Your task to perform on an android device: clear history in the chrome app Image 0: 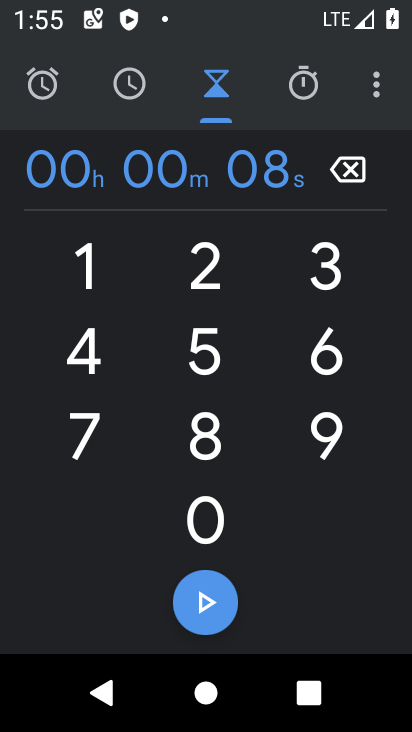
Step 0: press home button
Your task to perform on an android device: clear history in the chrome app Image 1: 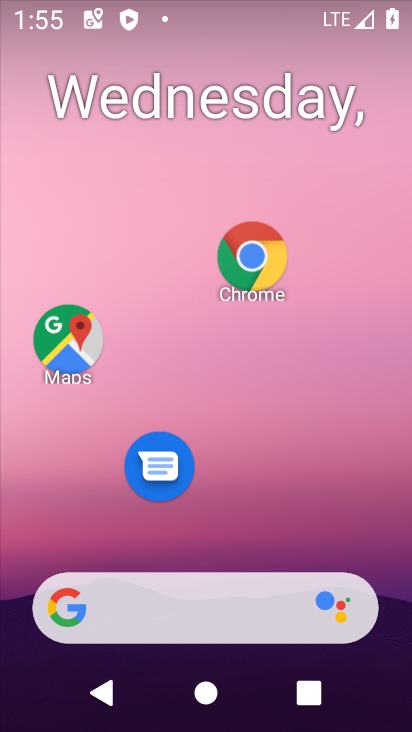
Step 1: drag from (292, 506) to (323, 64)
Your task to perform on an android device: clear history in the chrome app Image 2: 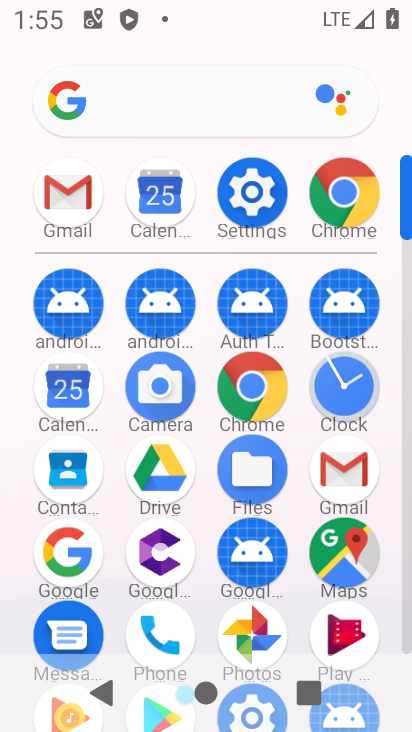
Step 2: click (253, 384)
Your task to perform on an android device: clear history in the chrome app Image 3: 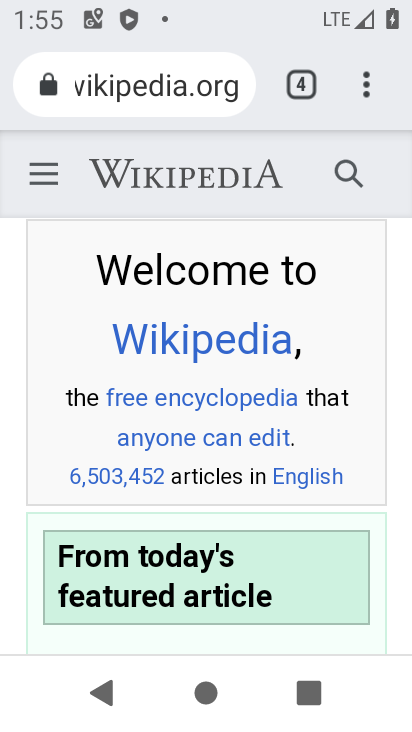
Step 3: drag from (367, 85) to (138, 464)
Your task to perform on an android device: clear history in the chrome app Image 4: 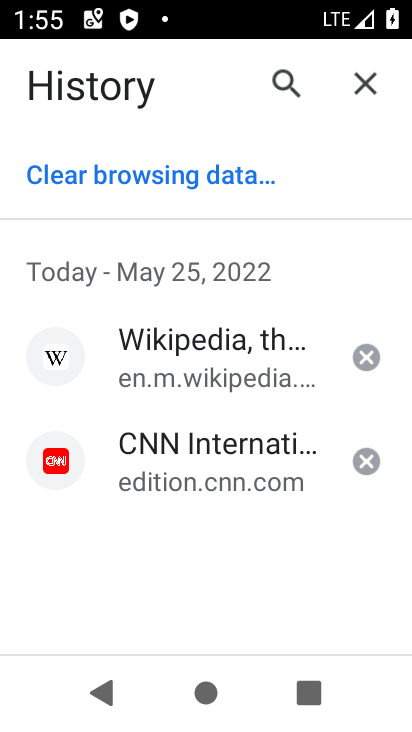
Step 4: click (60, 447)
Your task to perform on an android device: clear history in the chrome app Image 5: 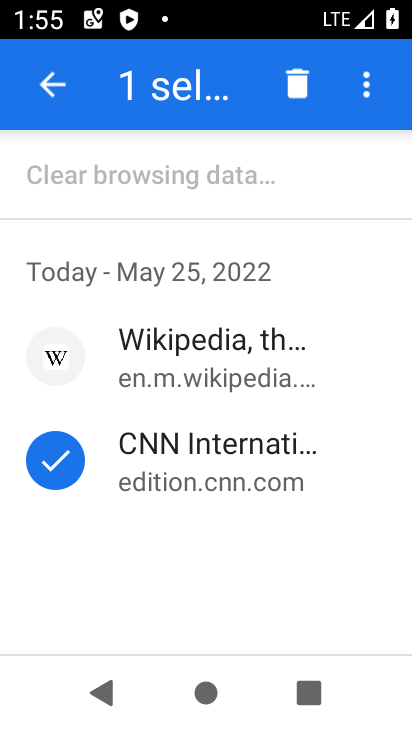
Step 5: click (40, 361)
Your task to perform on an android device: clear history in the chrome app Image 6: 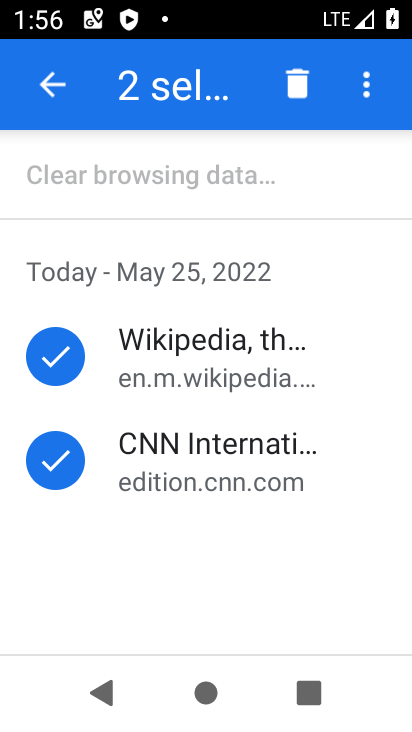
Step 6: click (303, 88)
Your task to perform on an android device: clear history in the chrome app Image 7: 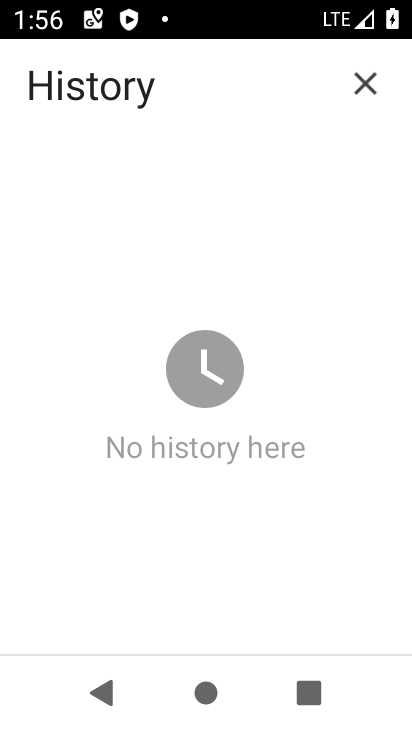
Step 7: task complete